Your task to perform on an android device: check google app version Image 0: 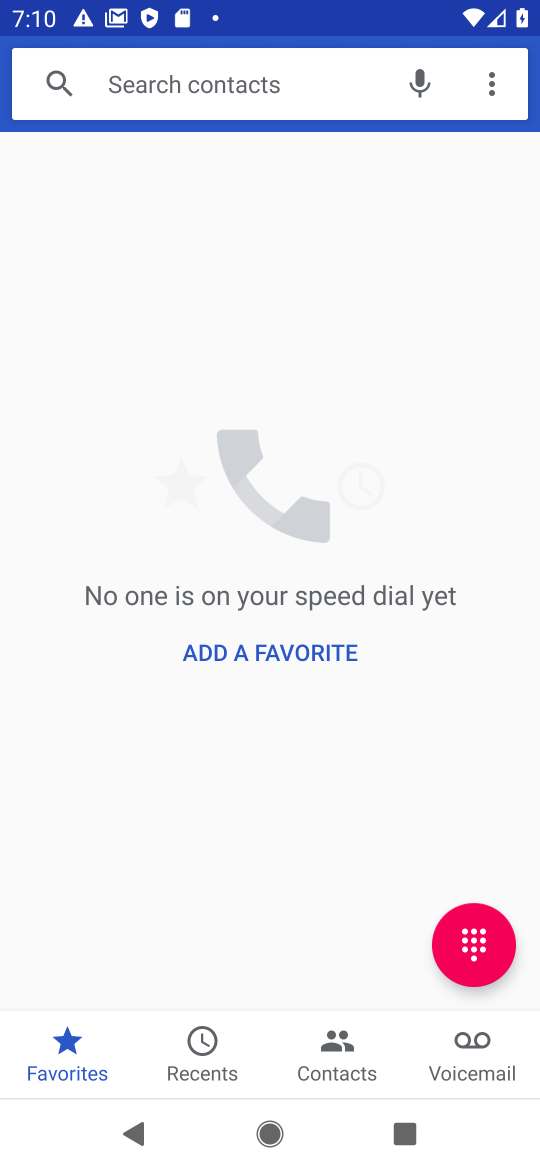
Step 0: press home button
Your task to perform on an android device: check google app version Image 1: 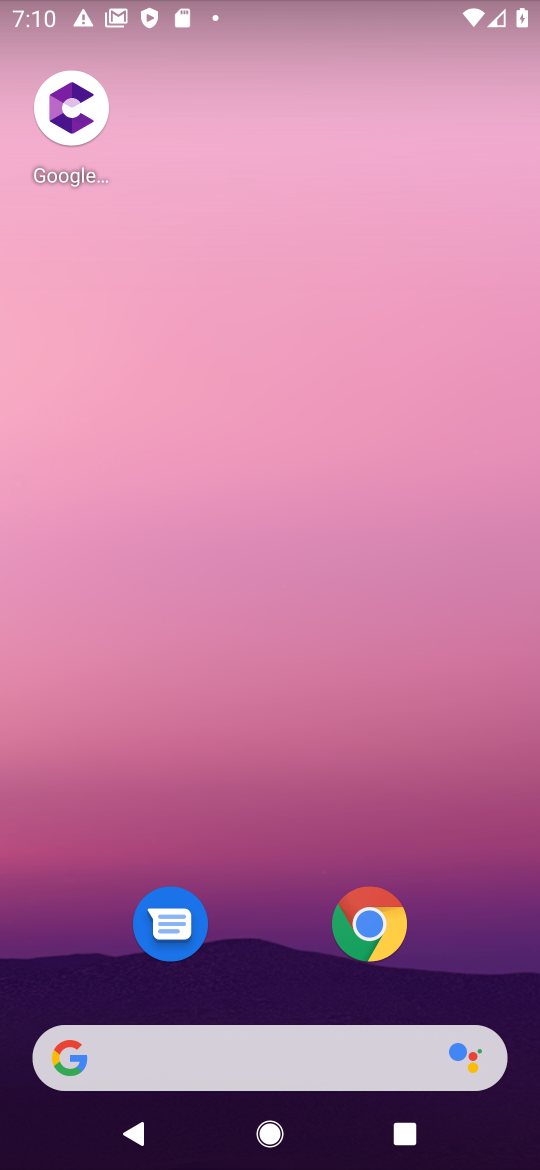
Step 1: drag from (333, 968) to (378, 386)
Your task to perform on an android device: check google app version Image 2: 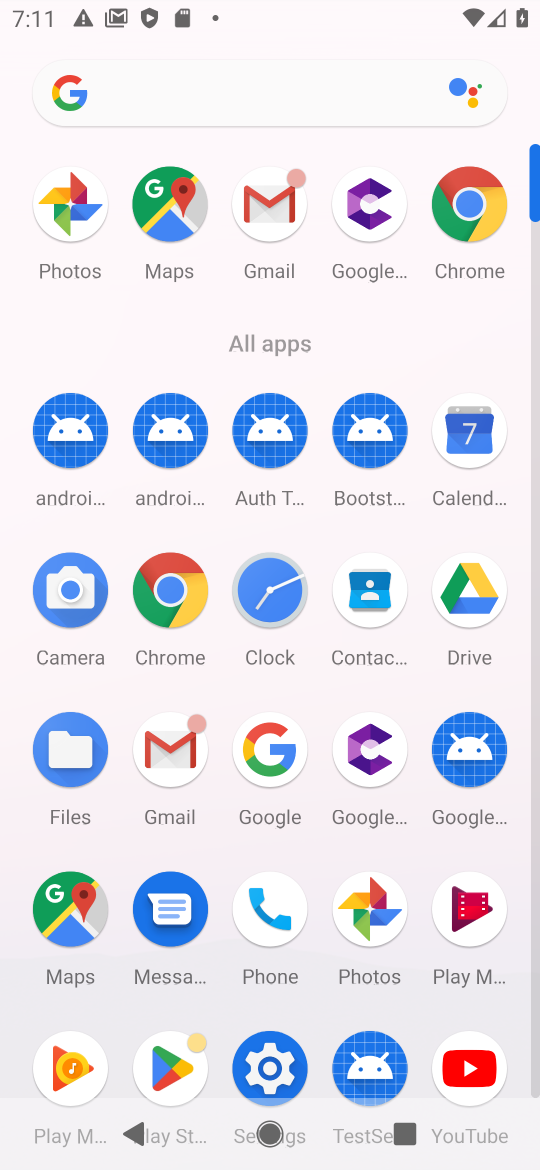
Step 2: click (432, 213)
Your task to perform on an android device: check google app version Image 3: 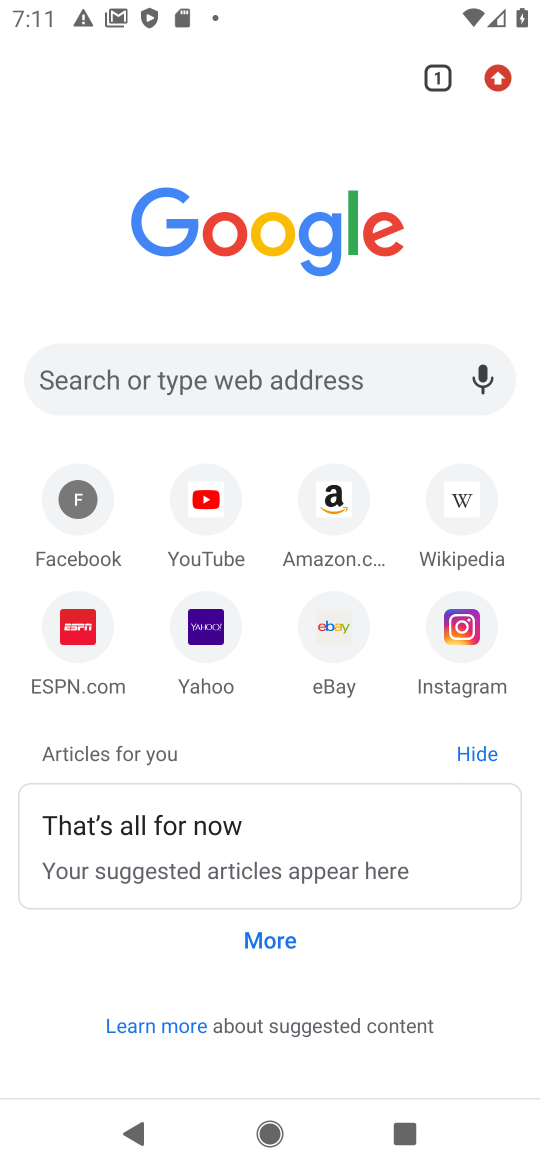
Step 3: click (499, 83)
Your task to perform on an android device: check google app version Image 4: 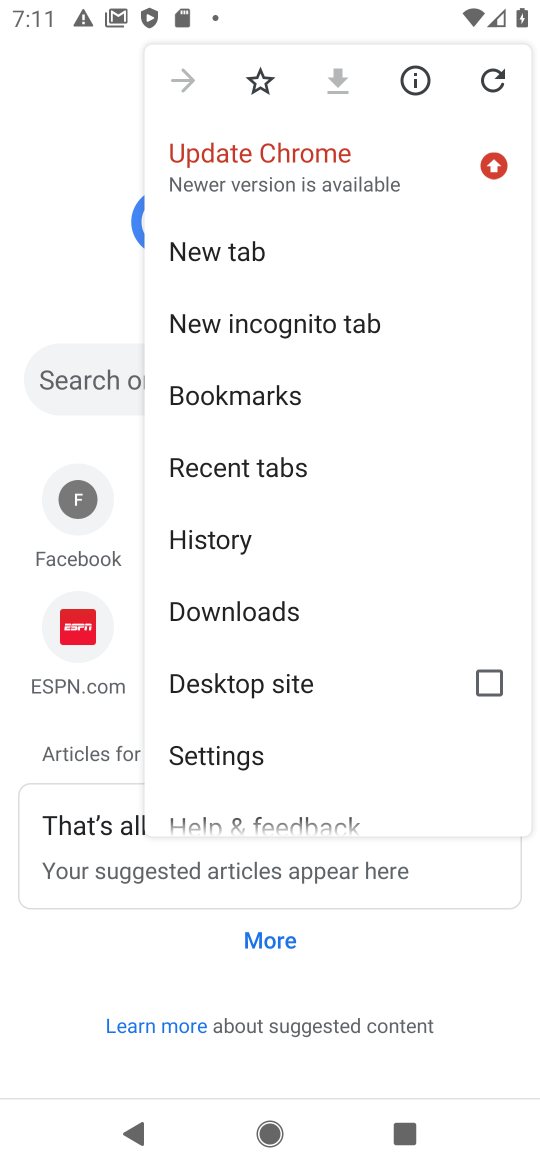
Step 4: click (239, 754)
Your task to perform on an android device: check google app version Image 5: 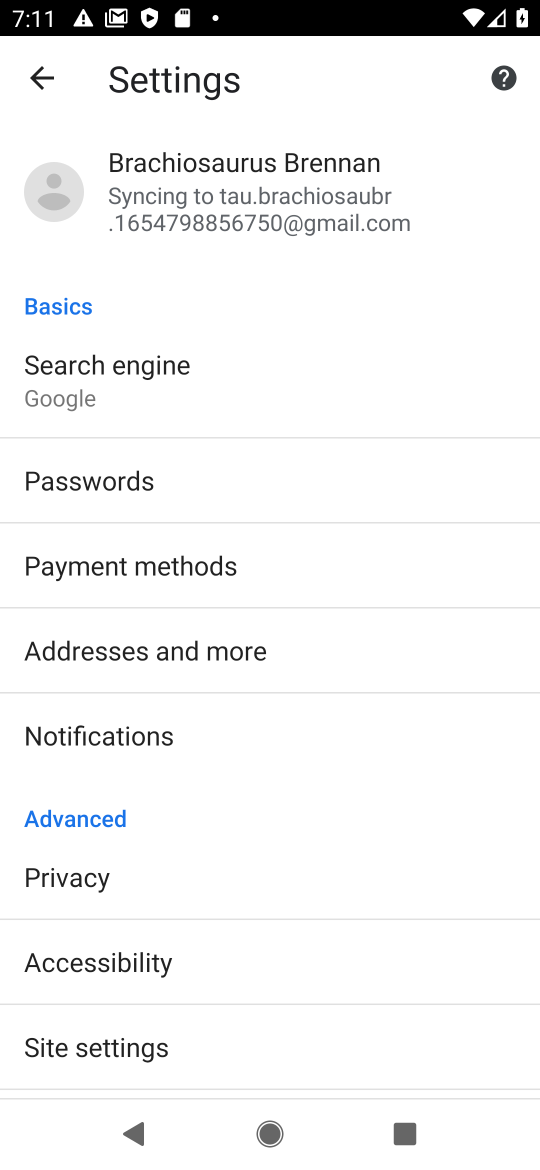
Step 5: drag from (125, 1044) to (138, 647)
Your task to perform on an android device: check google app version Image 6: 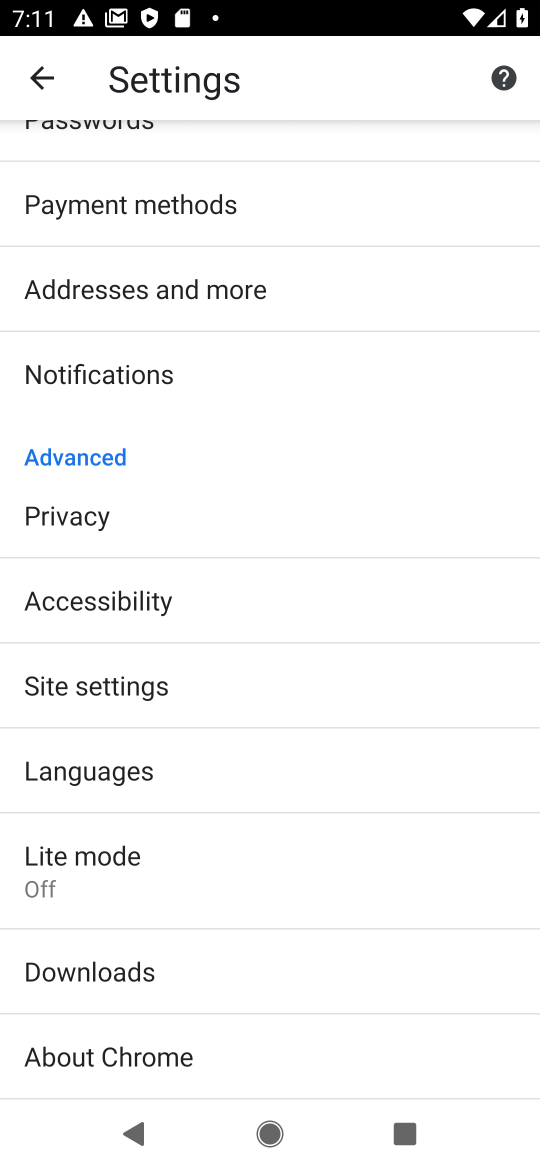
Step 6: click (102, 1052)
Your task to perform on an android device: check google app version Image 7: 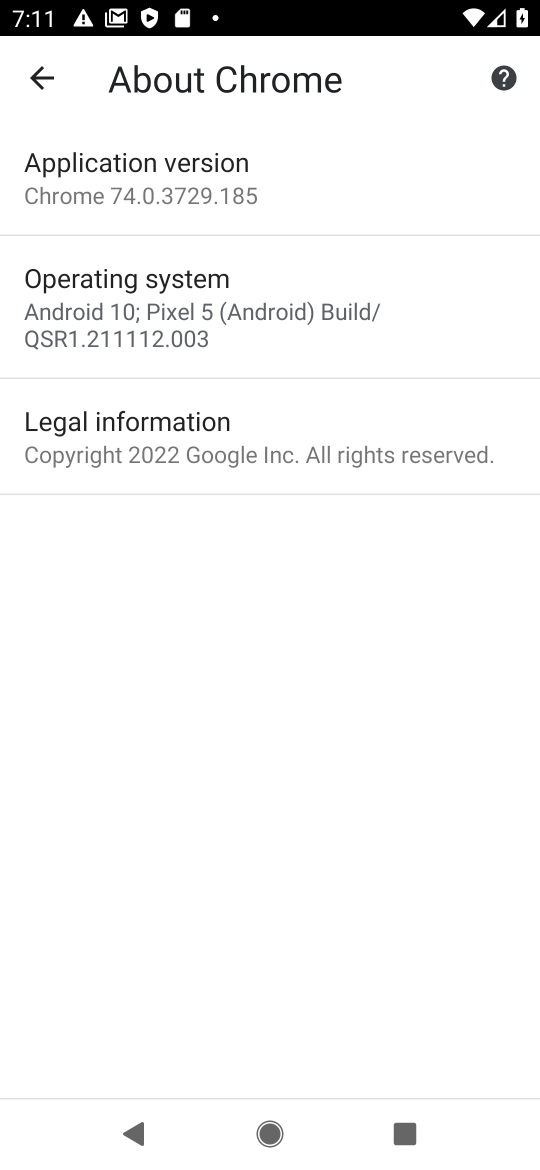
Step 7: click (142, 205)
Your task to perform on an android device: check google app version Image 8: 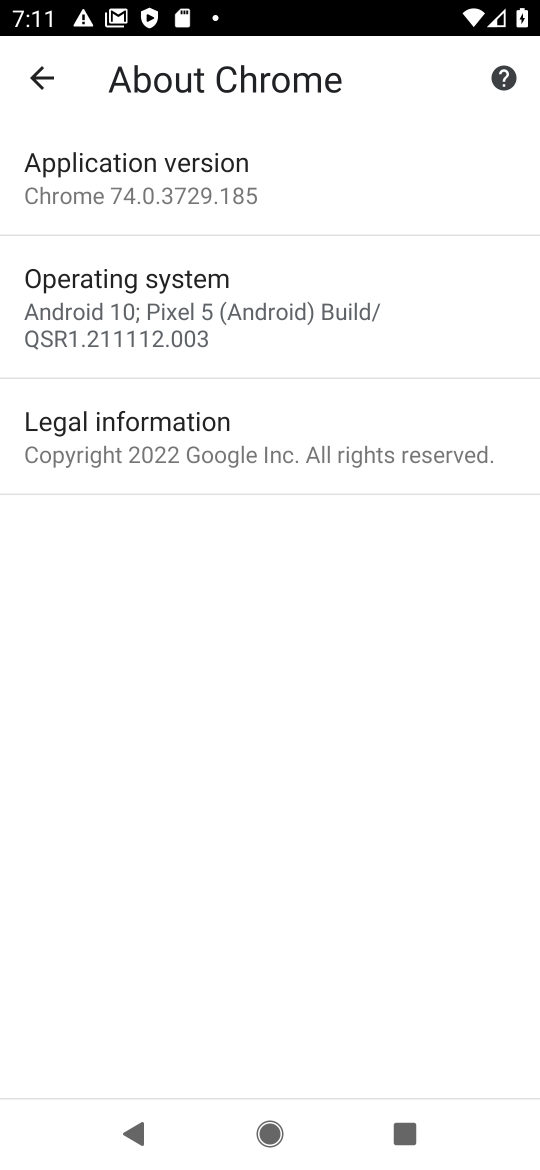
Step 8: task complete